Your task to perform on an android device: set the stopwatch Image 0: 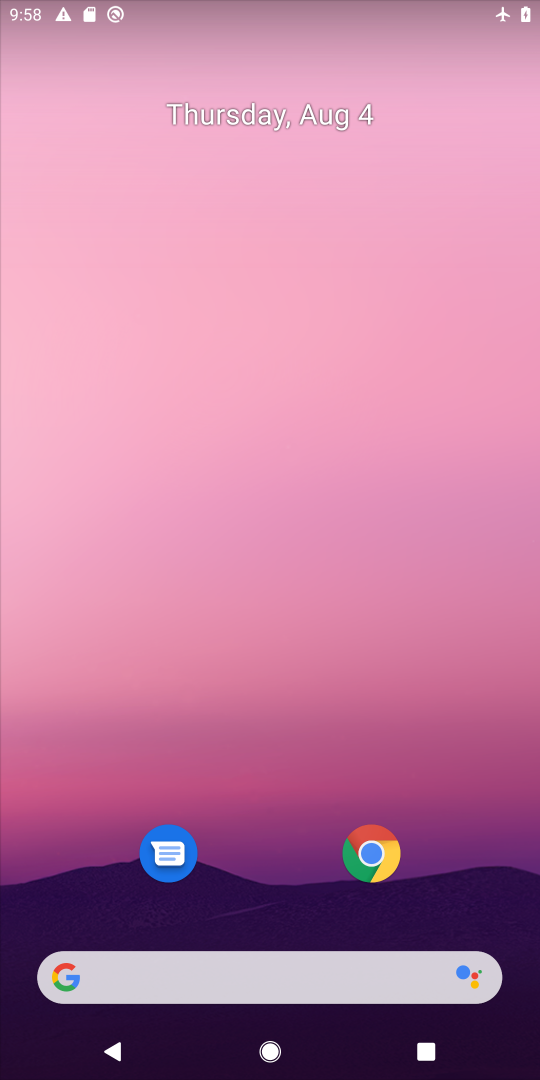
Step 0: drag from (224, 911) to (421, 26)
Your task to perform on an android device: set the stopwatch Image 1: 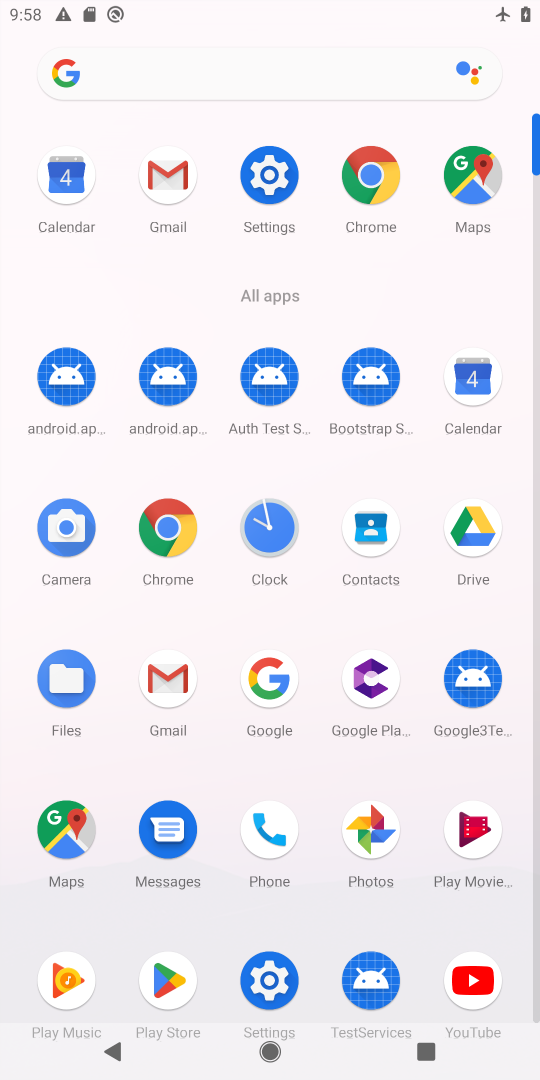
Step 1: click (286, 563)
Your task to perform on an android device: set the stopwatch Image 2: 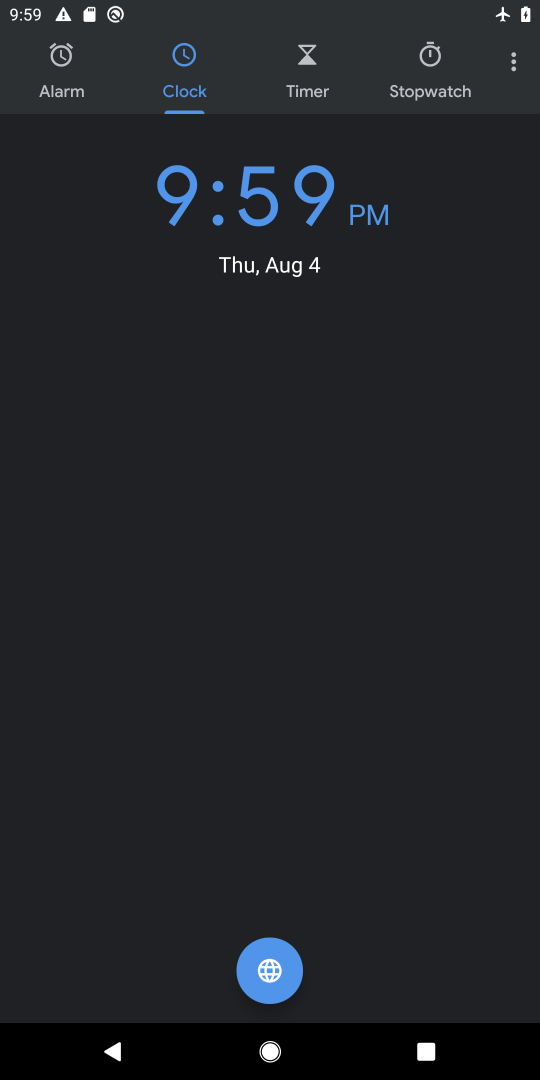
Step 2: click (405, 78)
Your task to perform on an android device: set the stopwatch Image 3: 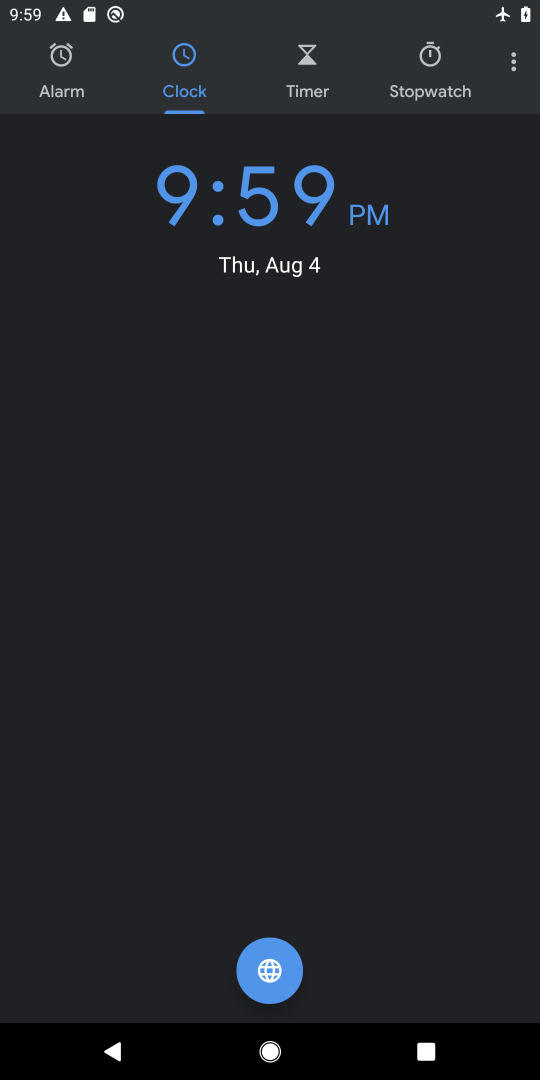
Step 3: click (414, 89)
Your task to perform on an android device: set the stopwatch Image 4: 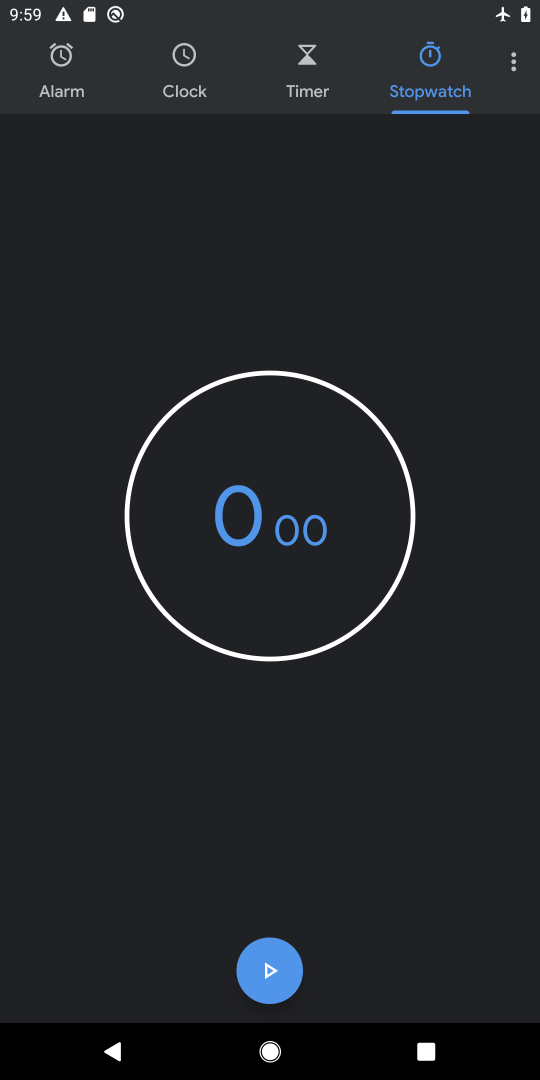
Step 4: click (289, 958)
Your task to perform on an android device: set the stopwatch Image 5: 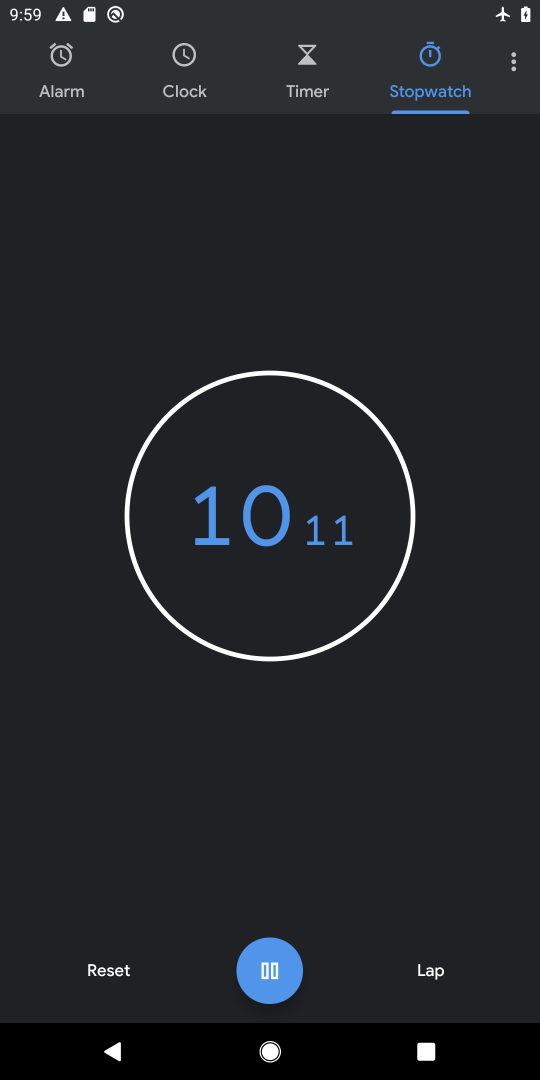
Step 5: task complete